Your task to perform on an android device: open a new tab in the chrome app Image 0: 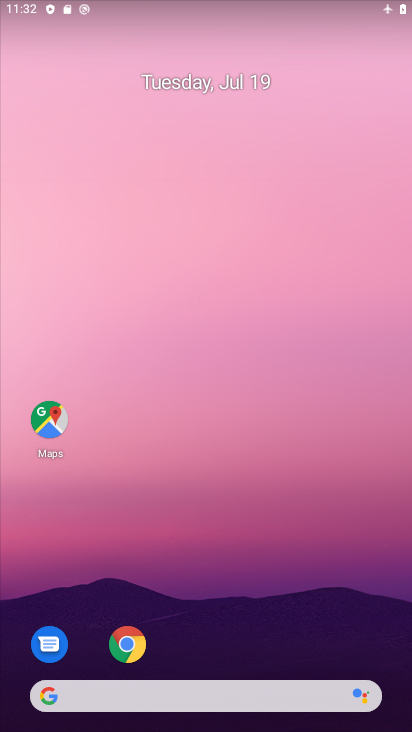
Step 0: drag from (198, 665) to (258, 32)
Your task to perform on an android device: open a new tab in the chrome app Image 1: 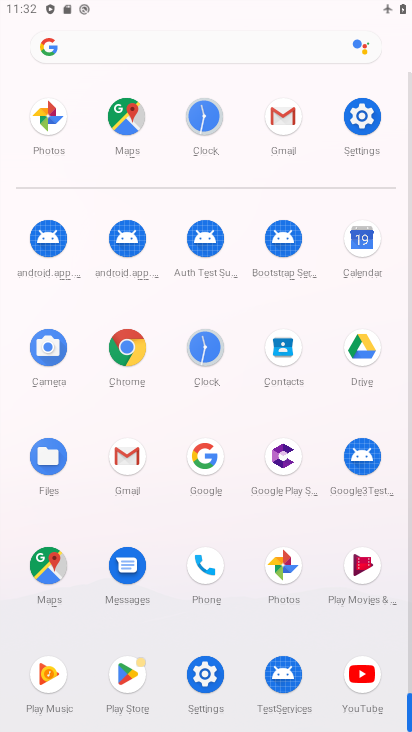
Step 1: click (125, 347)
Your task to perform on an android device: open a new tab in the chrome app Image 2: 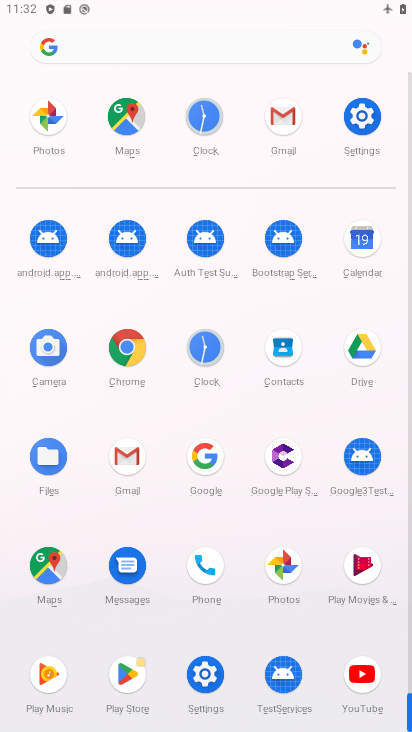
Step 2: click (125, 346)
Your task to perform on an android device: open a new tab in the chrome app Image 3: 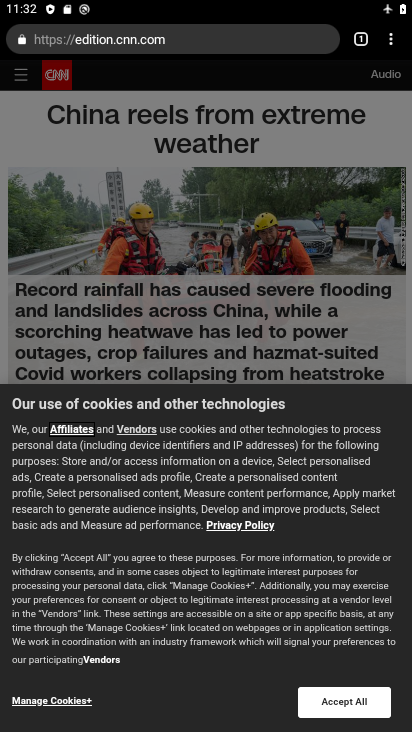
Step 3: task complete